Your task to perform on an android device: Open eBay Image 0: 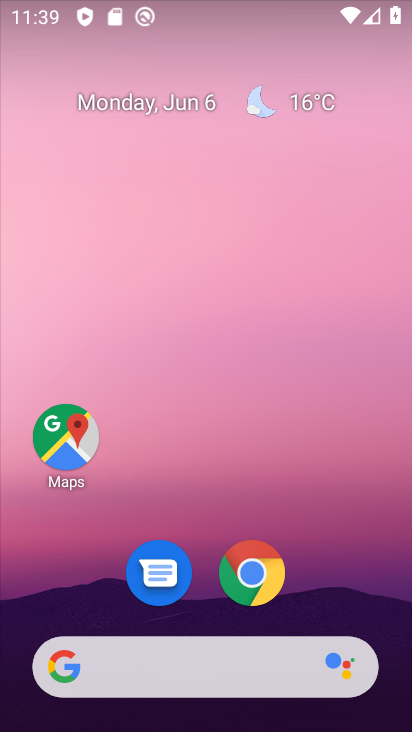
Step 0: press home button
Your task to perform on an android device: Open eBay Image 1: 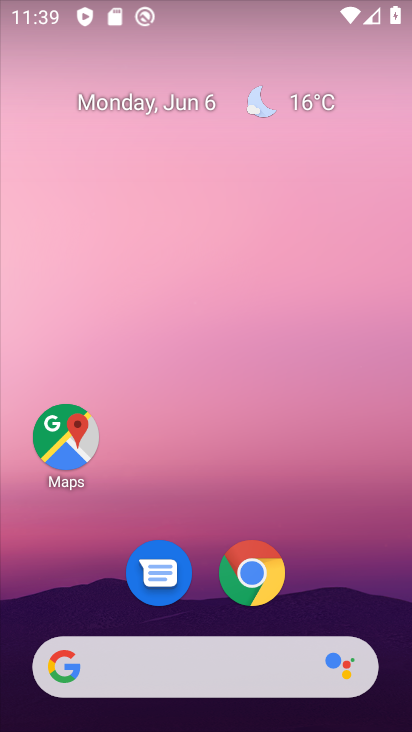
Step 1: drag from (335, 597) to (319, 161)
Your task to perform on an android device: Open eBay Image 2: 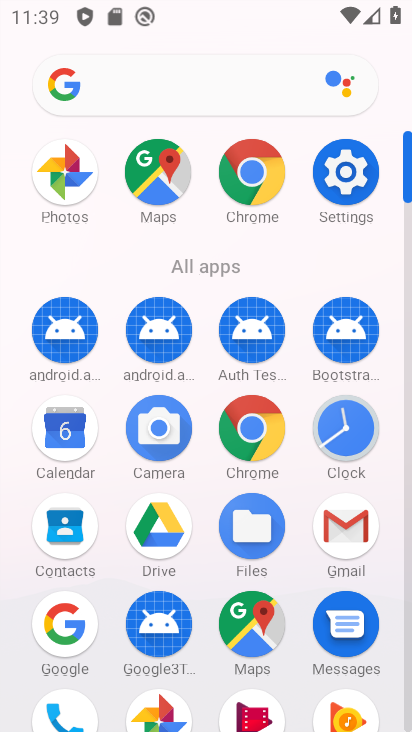
Step 2: click (253, 175)
Your task to perform on an android device: Open eBay Image 3: 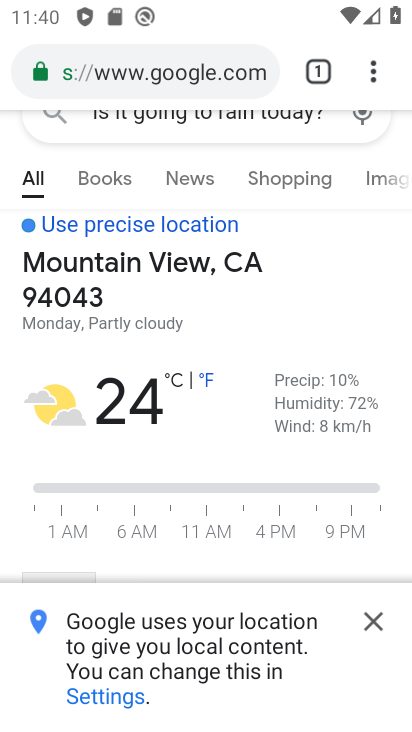
Step 3: drag from (367, 75) to (212, 139)
Your task to perform on an android device: Open eBay Image 4: 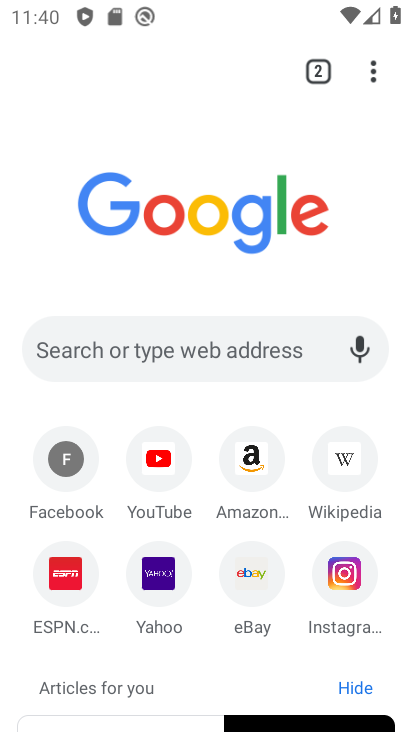
Step 4: click (240, 577)
Your task to perform on an android device: Open eBay Image 5: 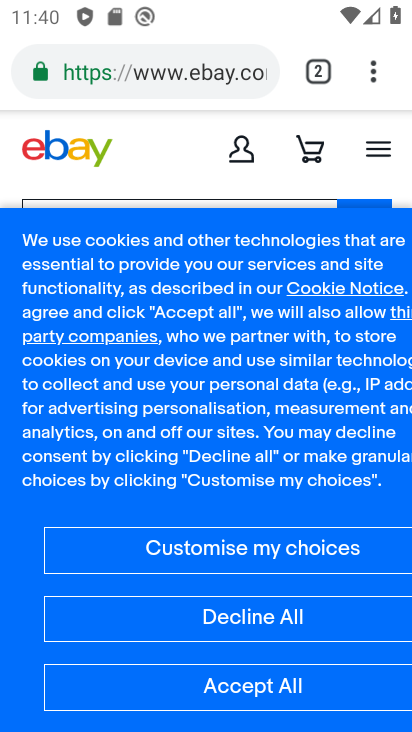
Step 5: task complete